Your task to perform on an android device: turn on wifi Image 0: 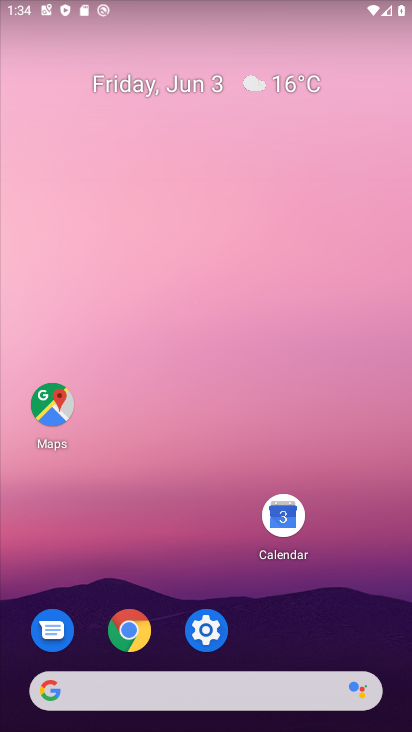
Step 0: drag from (277, 731) to (239, 258)
Your task to perform on an android device: turn on wifi Image 1: 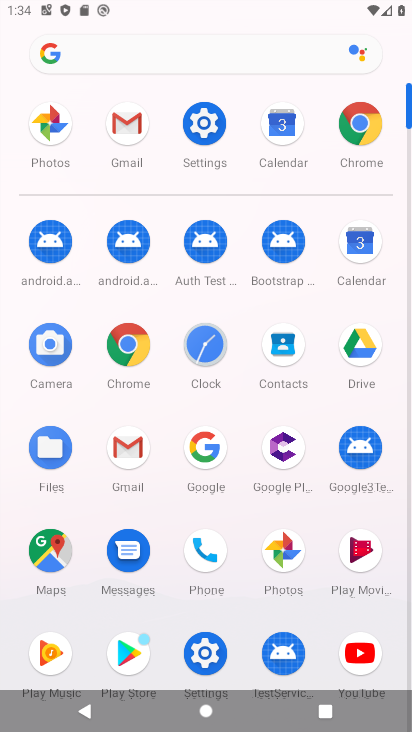
Step 1: click (207, 116)
Your task to perform on an android device: turn on wifi Image 2: 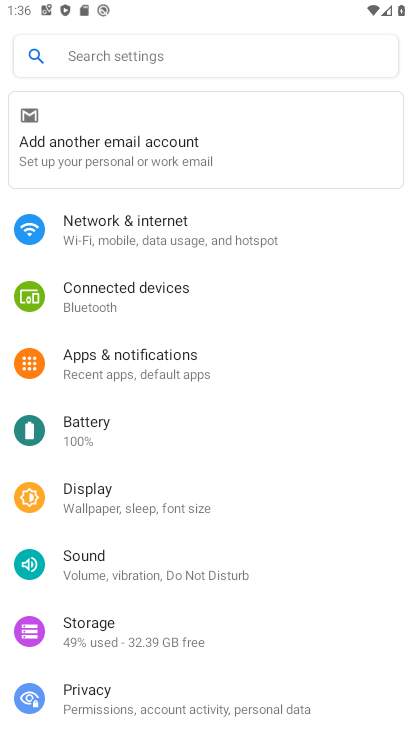
Step 2: task complete